Your task to perform on an android device: Open Google Maps and go to "Timeline" Image 0: 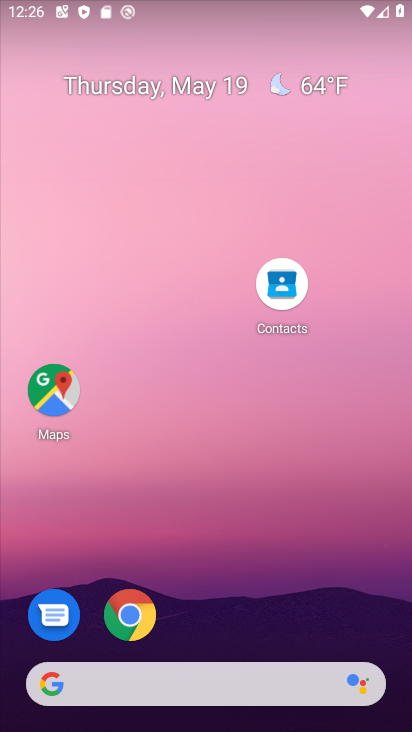
Step 0: drag from (253, 607) to (326, 216)
Your task to perform on an android device: Open Google Maps and go to "Timeline" Image 1: 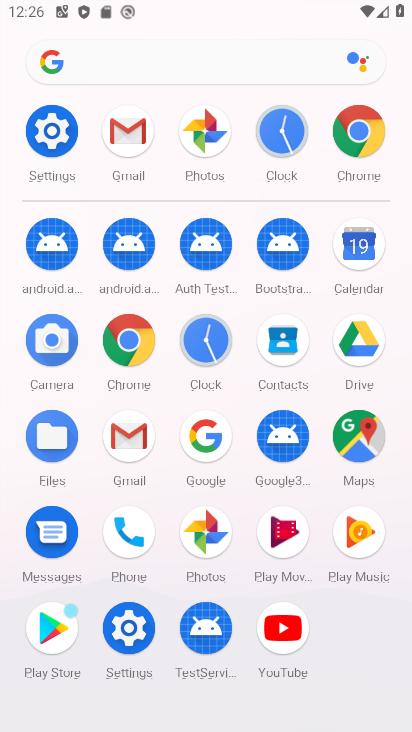
Step 1: drag from (182, 341) to (191, 595)
Your task to perform on an android device: Open Google Maps and go to "Timeline" Image 2: 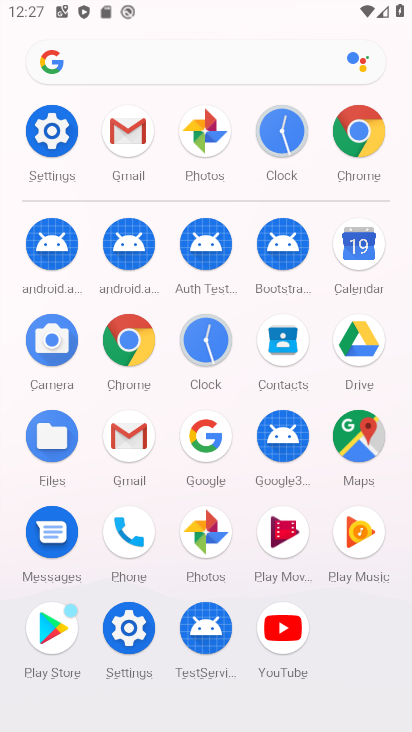
Step 2: click (360, 451)
Your task to perform on an android device: Open Google Maps and go to "Timeline" Image 3: 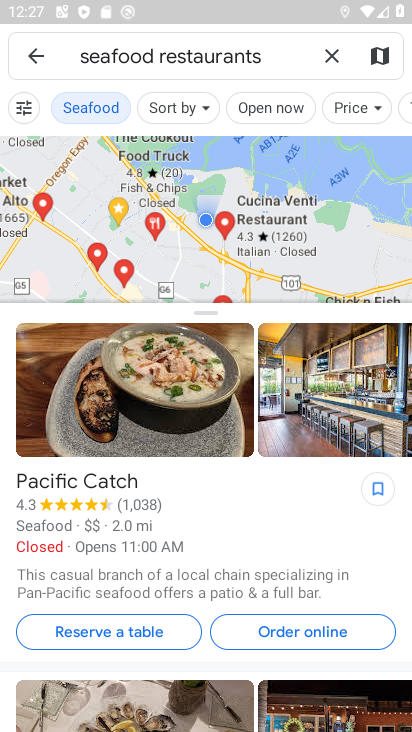
Step 3: click (34, 57)
Your task to perform on an android device: Open Google Maps and go to "Timeline" Image 4: 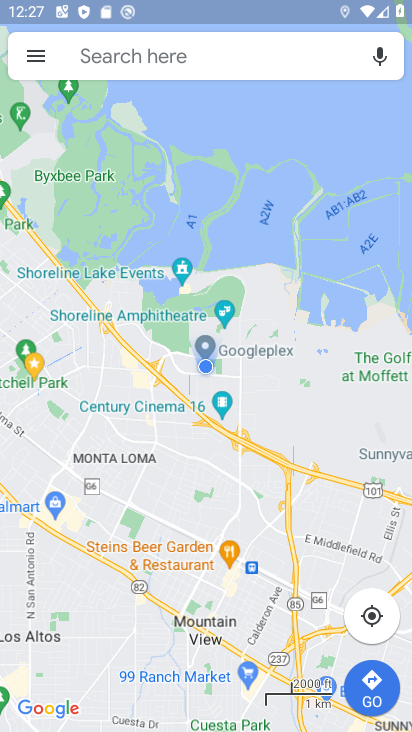
Step 4: click (44, 51)
Your task to perform on an android device: Open Google Maps and go to "Timeline" Image 5: 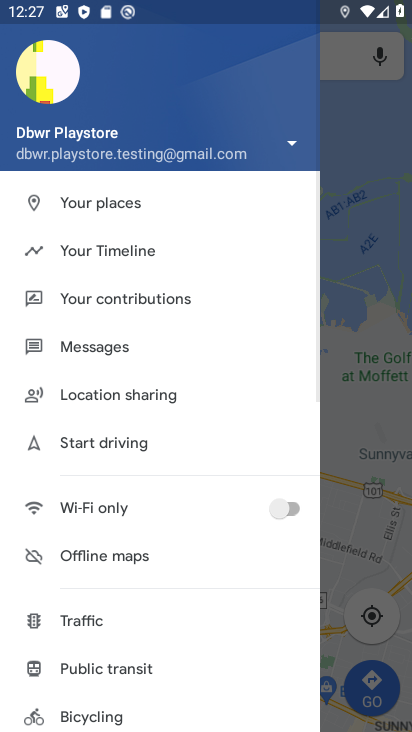
Step 5: click (148, 258)
Your task to perform on an android device: Open Google Maps and go to "Timeline" Image 6: 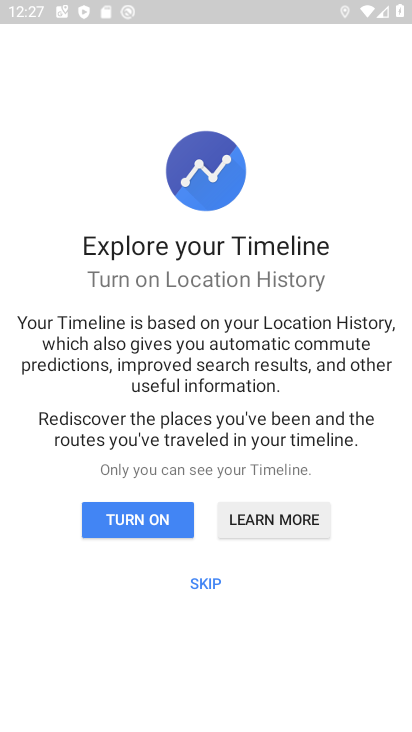
Step 6: click (203, 575)
Your task to perform on an android device: Open Google Maps and go to "Timeline" Image 7: 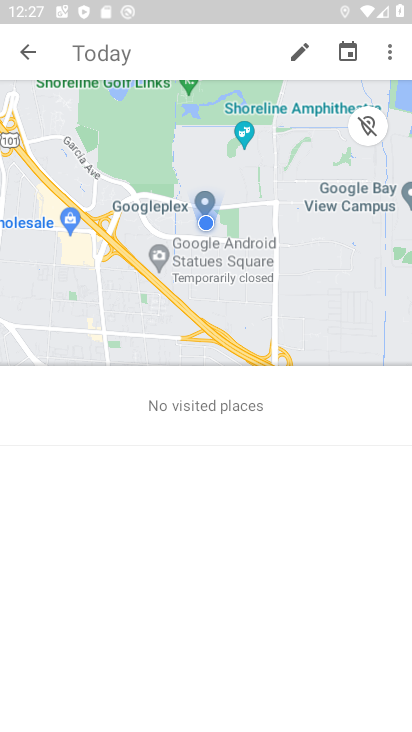
Step 7: task complete